Your task to perform on an android device: Open the calendar app, open the side menu, and click the "Day" option Image 0: 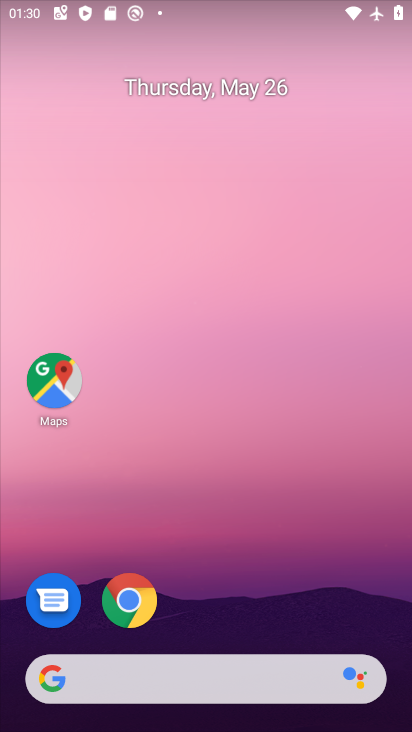
Step 0: drag from (259, 552) to (315, 138)
Your task to perform on an android device: Open the calendar app, open the side menu, and click the "Day" option Image 1: 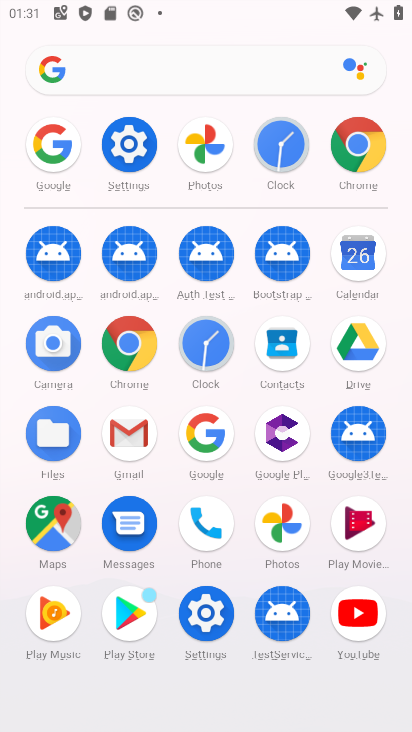
Step 1: click (374, 266)
Your task to perform on an android device: Open the calendar app, open the side menu, and click the "Day" option Image 2: 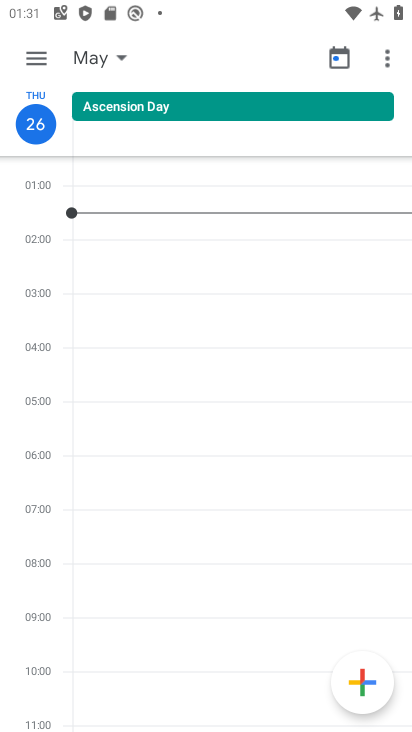
Step 2: click (32, 61)
Your task to perform on an android device: Open the calendar app, open the side menu, and click the "Day" option Image 3: 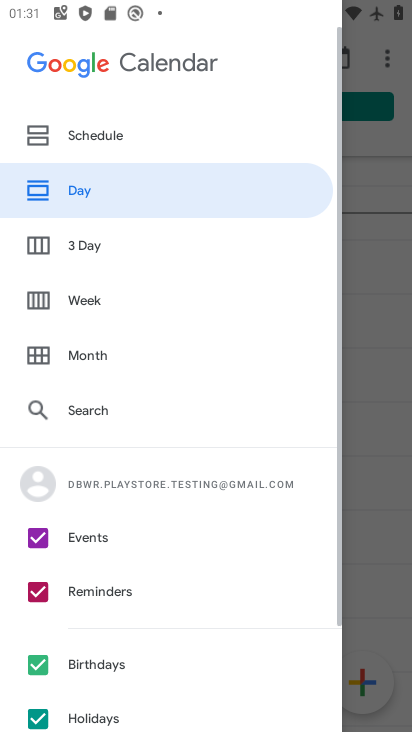
Step 3: click (105, 180)
Your task to perform on an android device: Open the calendar app, open the side menu, and click the "Day" option Image 4: 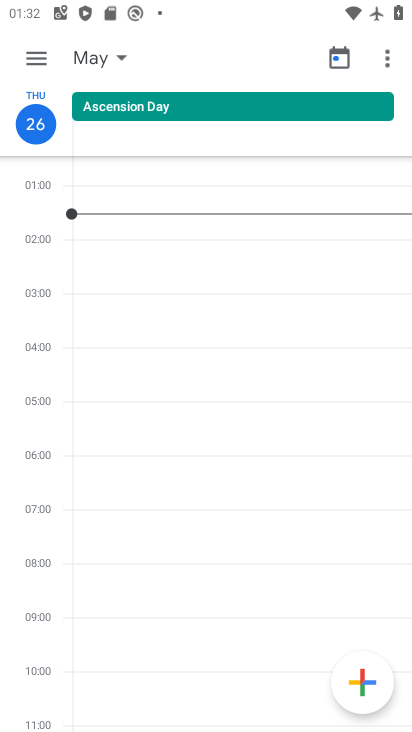
Step 4: task complete